Your task to perform on an android device: empty trash in google photos Image 0: 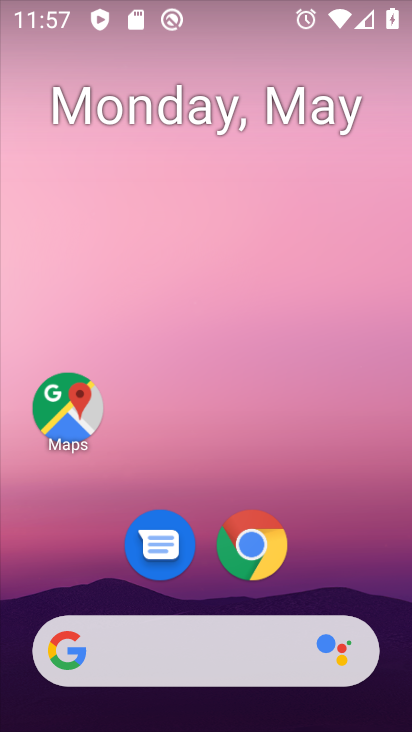
Step 0: drag from (283, 563) to (276, 267)
Your task to perform on an android device: empty trash in google photos Image 1: 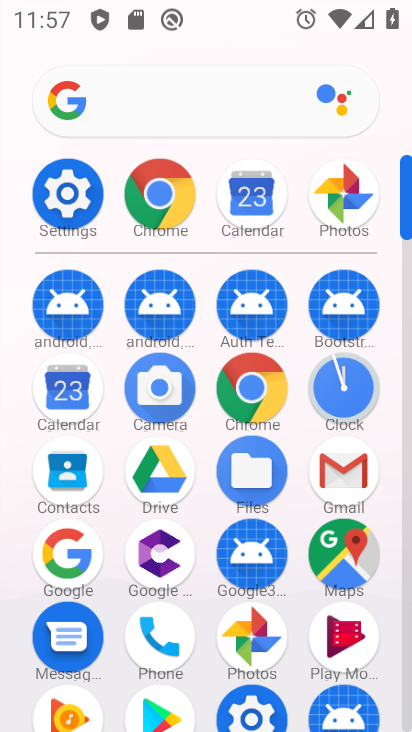
Step 1: click (339, 207)
Your task to perform on an android device: empty trash in google photos Image 2: 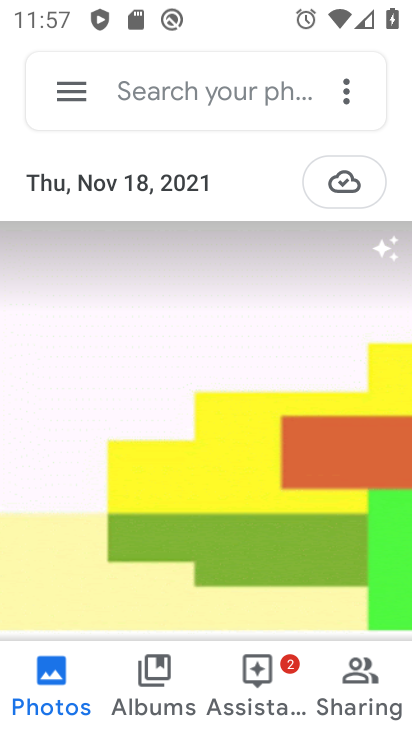
Step 2: click (44, 78)
Your task to perform on an android device: empty trash in google photos Image 3: 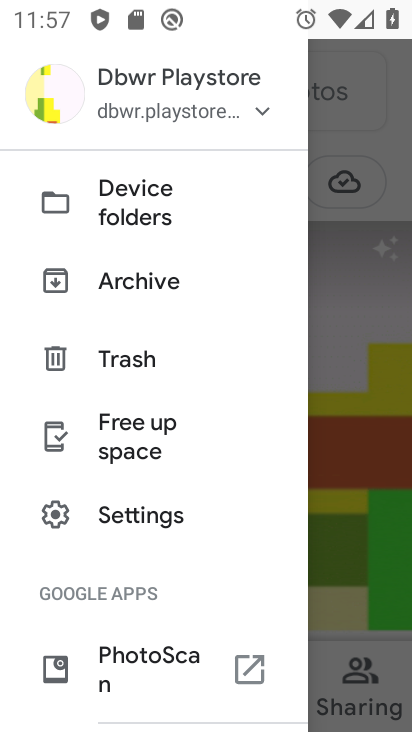
Step 3: click (135, 535)
Your task to perform on an android device: empty trash in google photos Image 4: 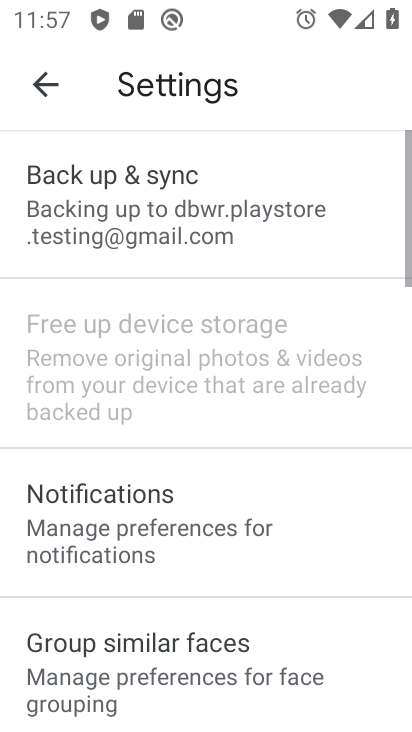
Step 4: drag from (147, 597) to (89, 346)
Your task to perform on an android device: empty trash in google photos Image 5: 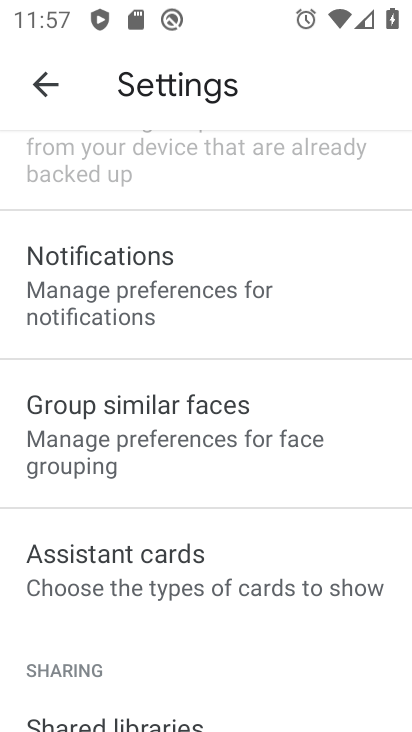
Step 5: drag from (160, 538) to (117, 236)
Your task to perform on an android device: empty trash in google photos Image 6: 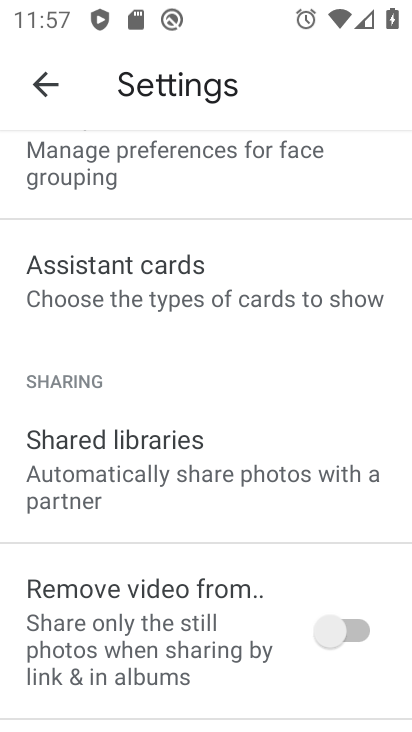
Step 6: drag from (198, 470) to (137, 222)
Your task to perform on an android device: empty trash in google photos Image 7: 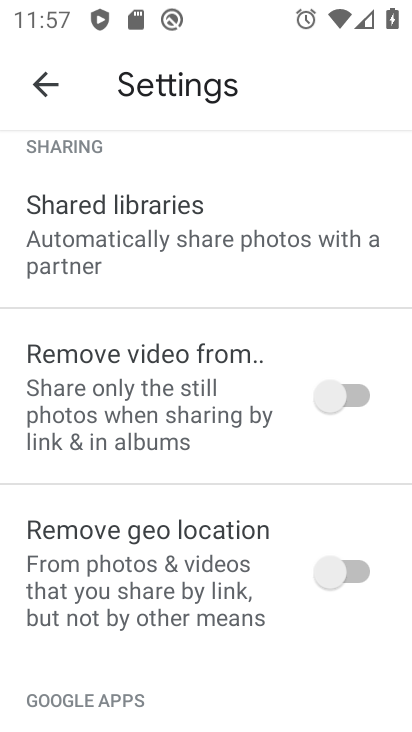
Step 7: drag from (187, 525) to (133, 265)
Your task to perform on an android device: empty trash in google photos Image 8: 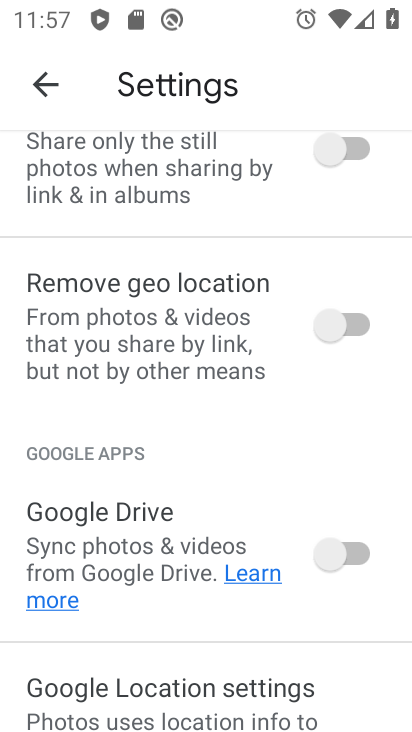
Step 8: drag from (190, 504) to (147, 208)
Your task to perform on an android device: empty trash in google photos Image 9: 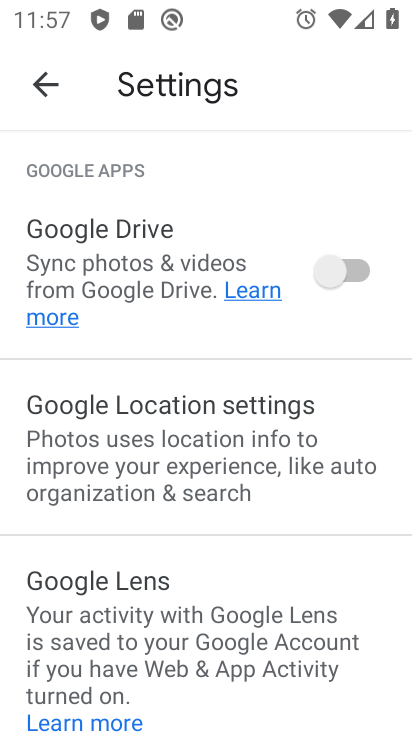
Step 9: drag from (194, 596) to (151, 280)
Your task to perform on an android device: empty trash in google photos Image 10: 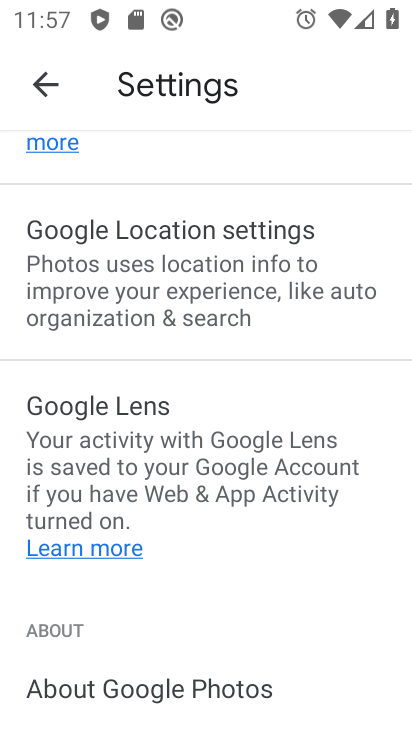
Step 10: drag from (192, 535) to (147, 203)
Your task to perform on an android device: empty trash in google photos Image 11: 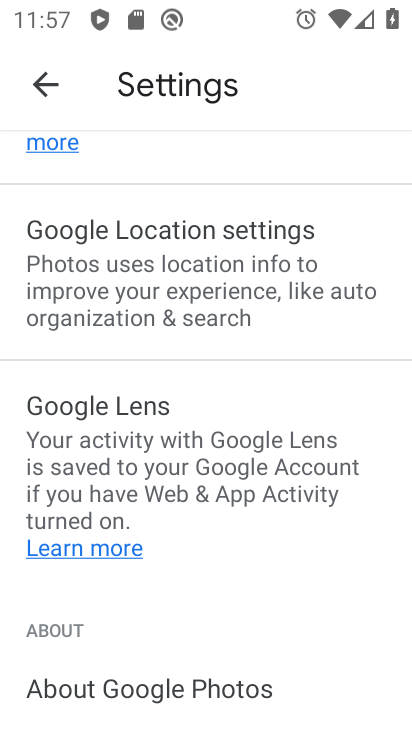
Step 11: drag from (186, 604) to (159, 405)
Your task to perform on an android device: empty trash in google photos Image 12: 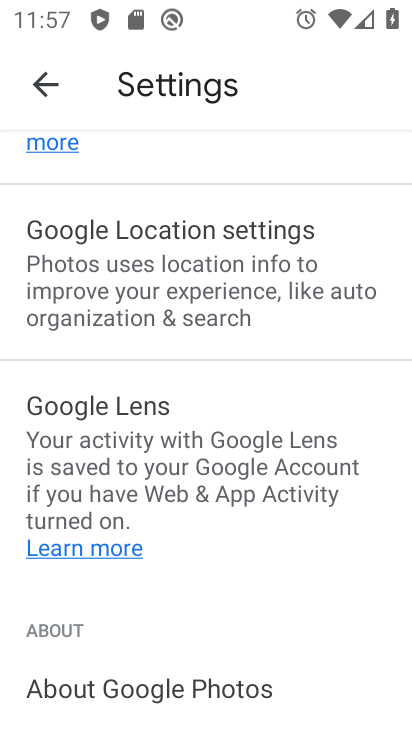
Step 12: click (203, 689)
Your task to perform on an android device: empty trash in google photos Image 13: 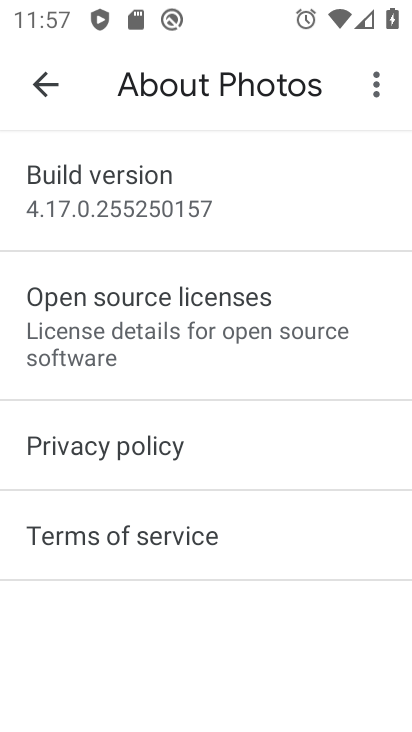
Step 13: task complete